Your task to perform on an android device: Go to Wikipedia Image 0: 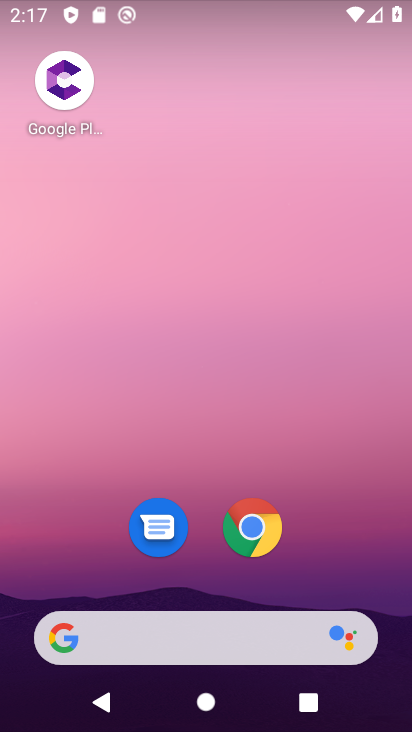
Step 0: drag from (173, 547) to (257, 191)
Your task to perform on an android device: Go to Wikipedia Image 1: 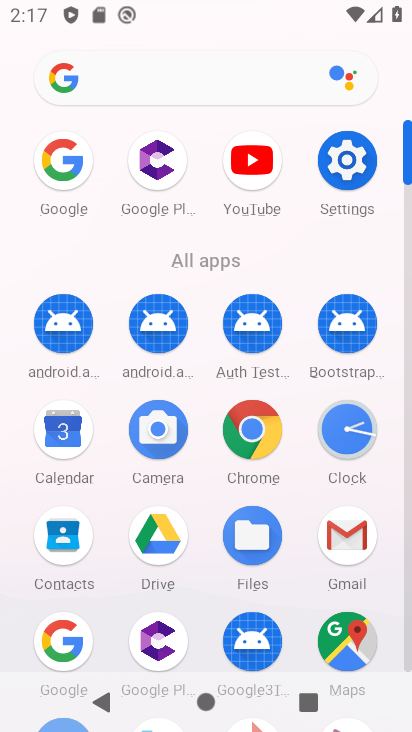
Step 1: click (256, 417)
Your task to perform on an android device: Go to Wikipedia Image 2: 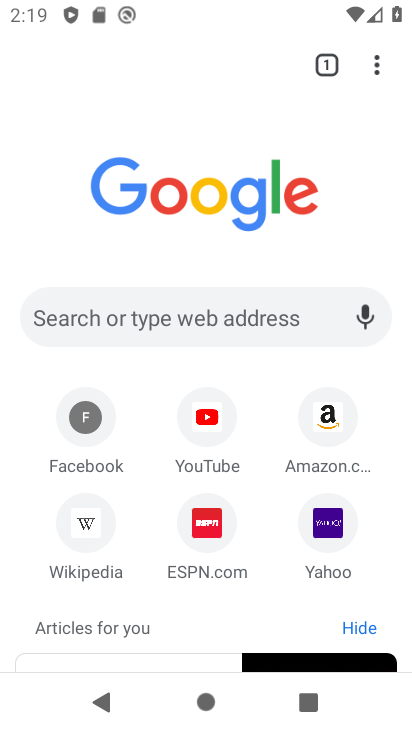
Step 2: click (83, 526)
Your task to perform on an android device: Go to Wikipedia Image 3: 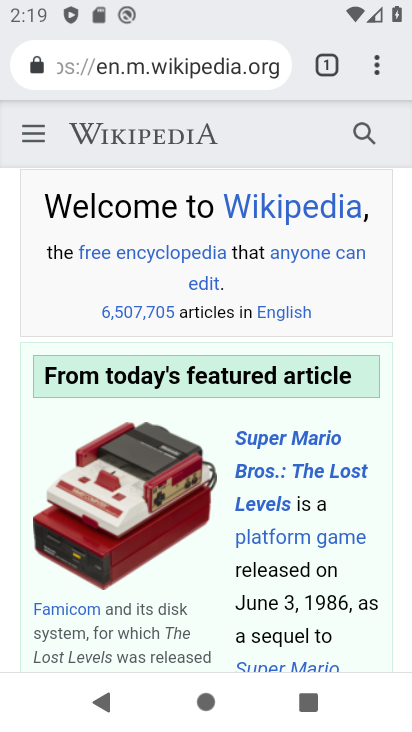
Step 3: task complete